Your task to perform on an android device: What's the weather going to be this weekend? Image 0: 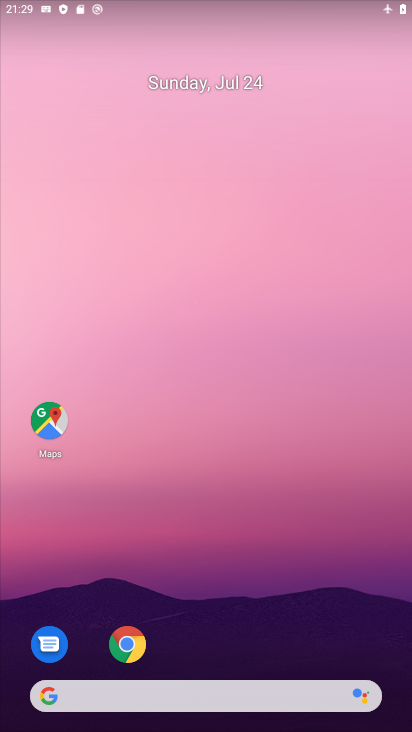
Step 0: click (168, 707)
Your task to perform on an android device: What's the weather going to be this weekend? Image 1: 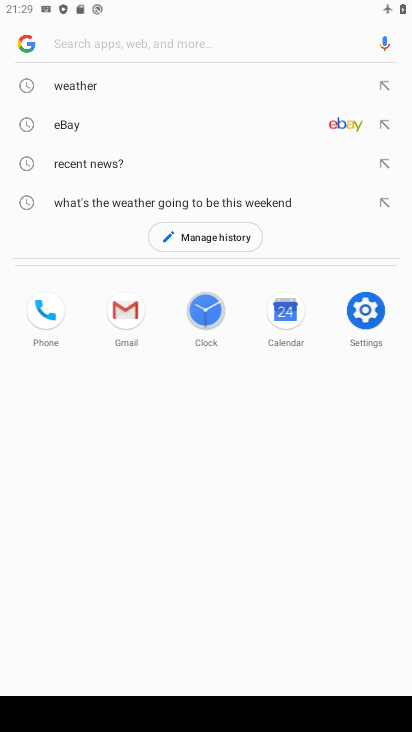
Step 1: click (89, 88)
Your task to perform on an android device: What's the weather going to be this weekend? Image 2: 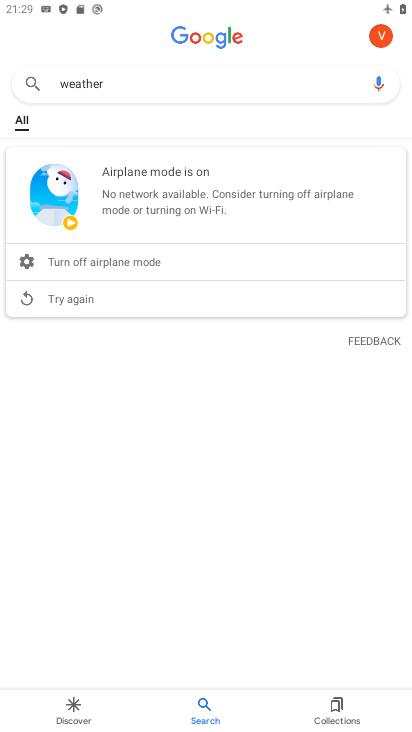
Step 2: click (24, 296)
Your task to perform on an android device: What's the weather going to be this weekend? Image 3: 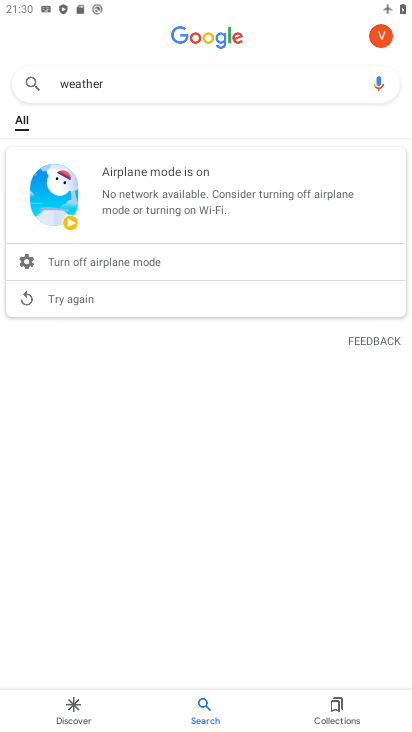
Step 3: task complete